Your task to perform on an android device: Go to Yahoo.com Image 0: 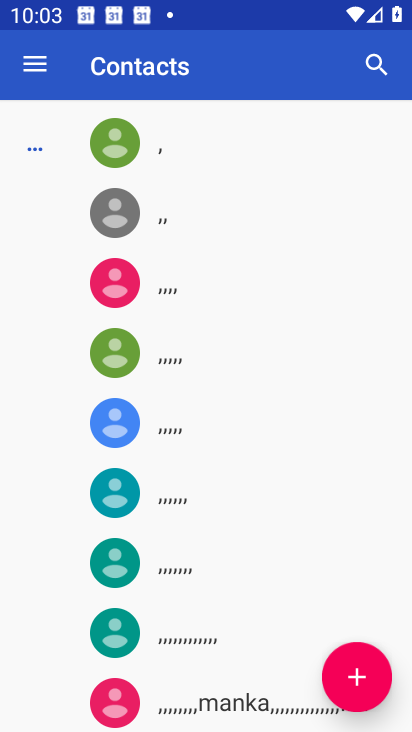
Step 0: press home button
Your task to perform on an android device: Go to Yahoo.com Image 1: 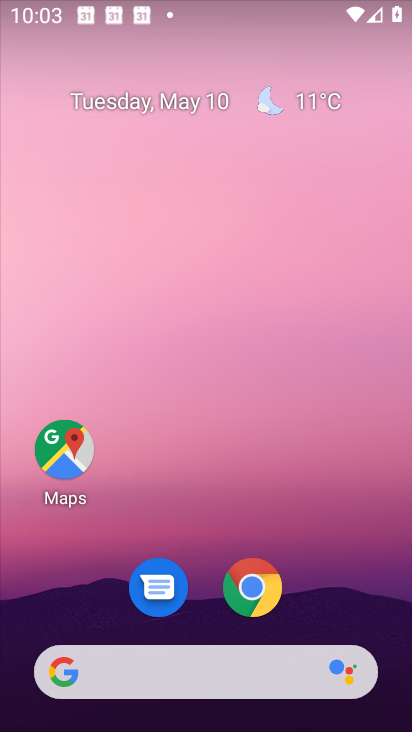
Step 1: click (274, 591)
Your task to perform on an android device: Go to Yahoo.com Image 2: 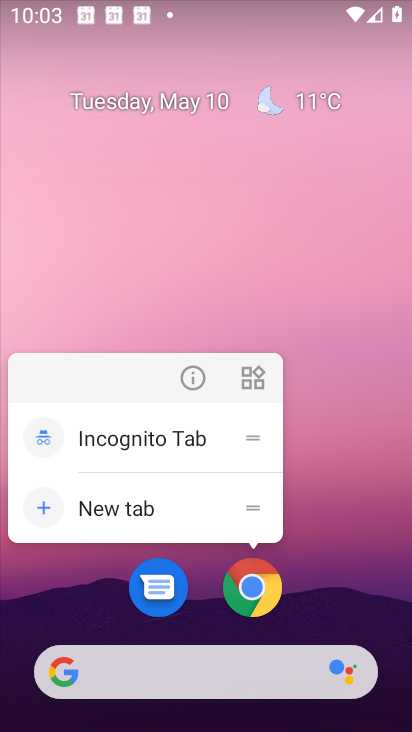
Step 2: click (268, 595)
Your task to perform on an android device: Go to Yahoo.com Image 3: 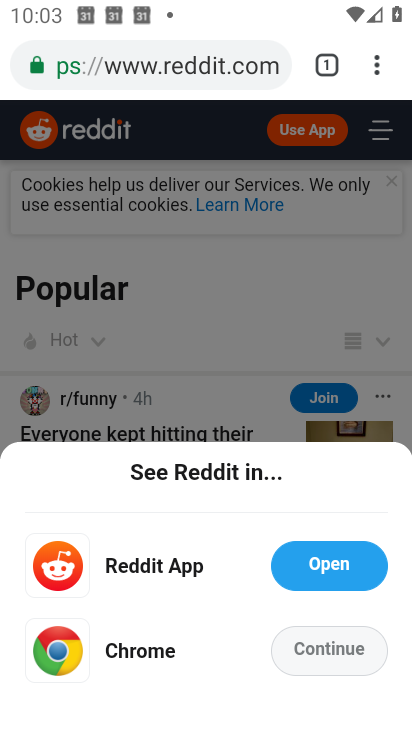
Step 3: click (248, 65)
Your task to perform on an android device: Go to Yahoo.com Image 4: 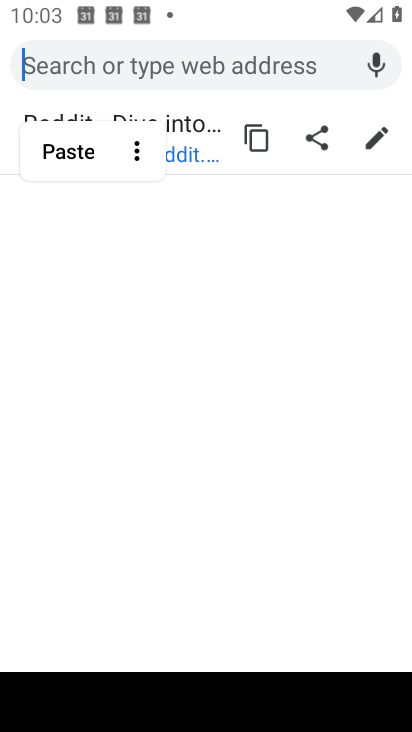
Step 4: type "yahoo.com"
Your task to perform on an android device: Go to Yahoo.com Image 5: 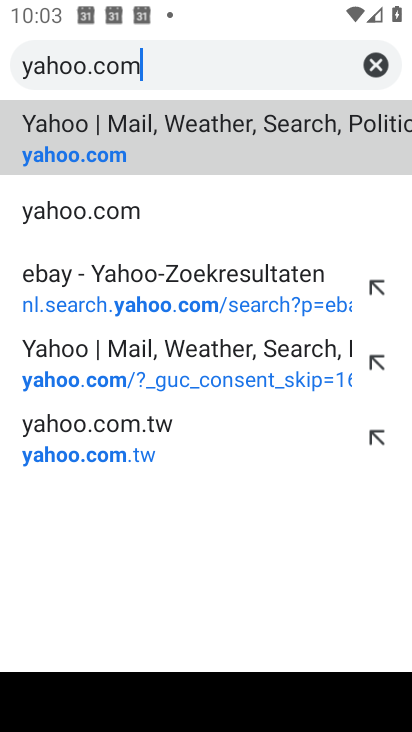
Step 5: click (84, 218)
Your task to perform on an android device: Go to Yahoo.com Image 6: 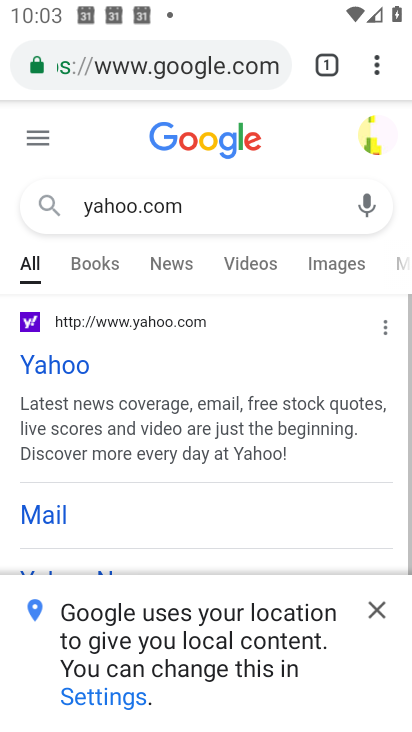
Step 6: click (374, 607)
Your task to perform on an android device: Go to Yahoo.com Image 7: 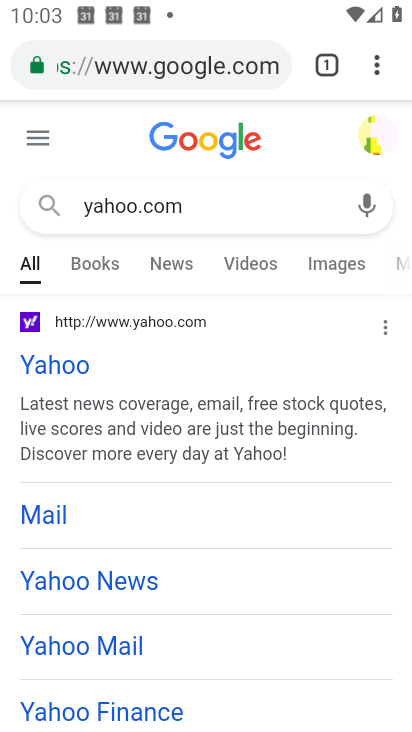
Step 7: click (66, 368)
Your task to perform on an android device: Go to Yahoo.com Image 8: 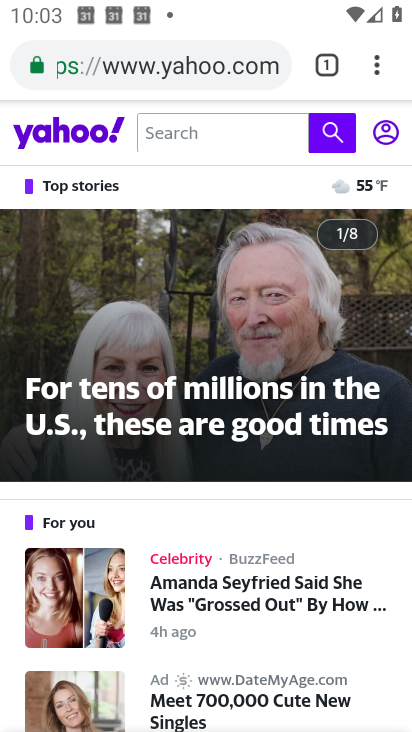
Step 8: task complete